Your task to perform on an android device: turn on the 24-hour format for clock Image 0: 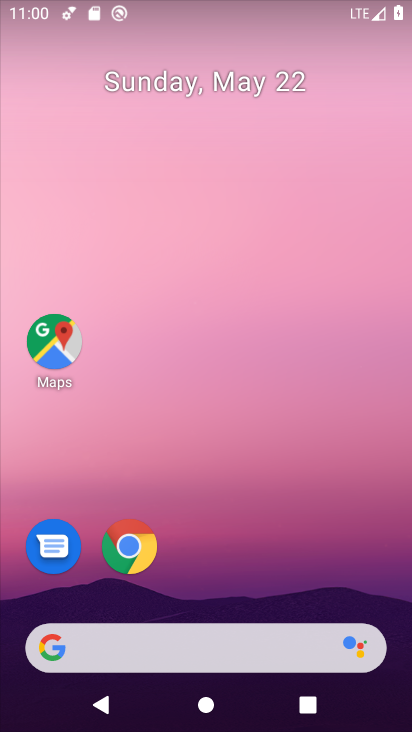
Step 0: drag from (244, 549) to (315, 139)
Your task to perform on an android device: turn on the 24-hour format for clock Image 1: 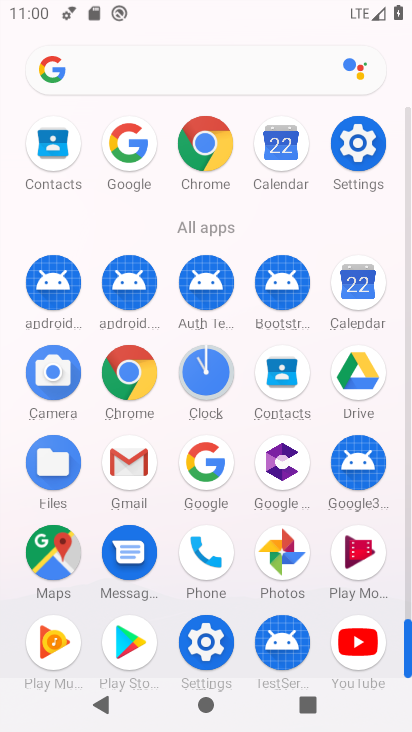
Step 1: click (361, 158)
Your task to perform on an android device: turn on the 24-hour format for clock Image 2: 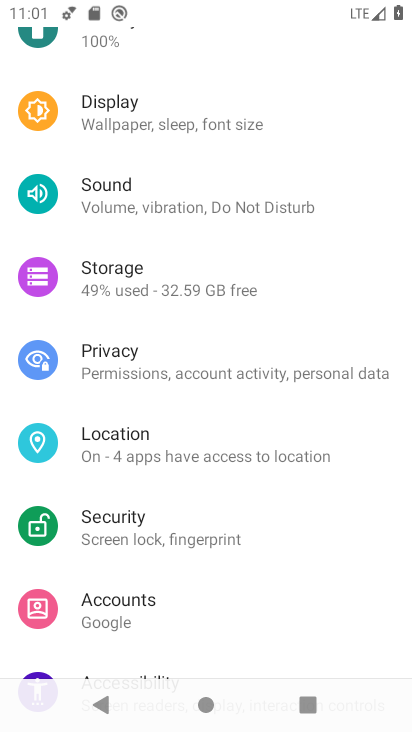
Step 2: press home button
Your task to perform on an android device: turn on the 24-hour format for clock Image 3: 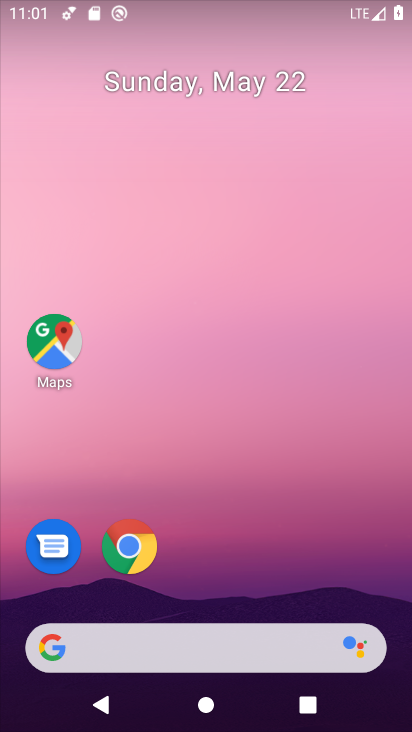
Step 3: drag from (229, 611) to (305, 0)
Your task to perform on an android device: turn on the 24-hour format for clock Image 4: 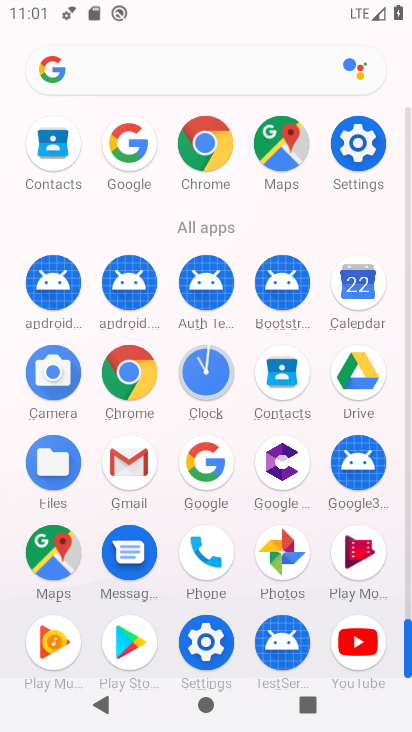
Step 4: click (207, 384)
Your task to perform on an android device: turn on the 24-hour format for clock Image 5: 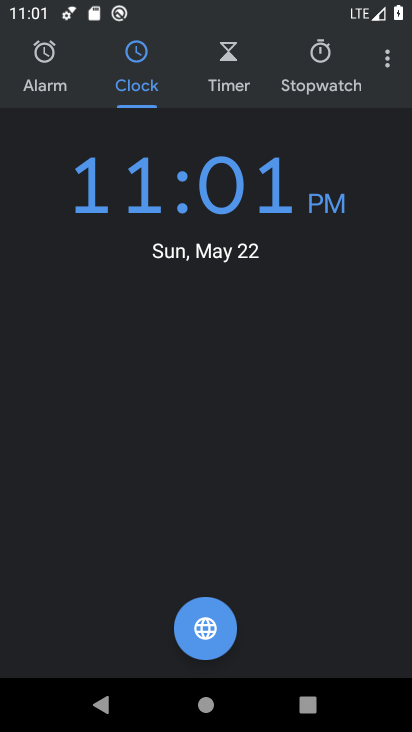
Step 5: click (387, 66)
Your task to perform on an android device: turn on the 24-hour format for clock Image 6: 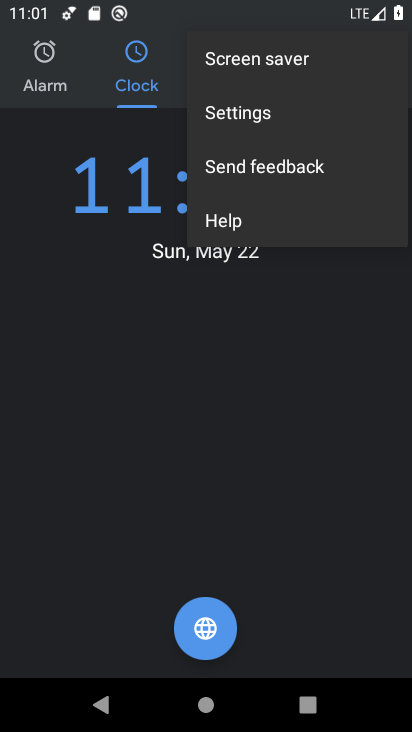
Step 6: click (249, 117)
Your task to perform on an android device: turn on the 24-hour format for clock Image 7: 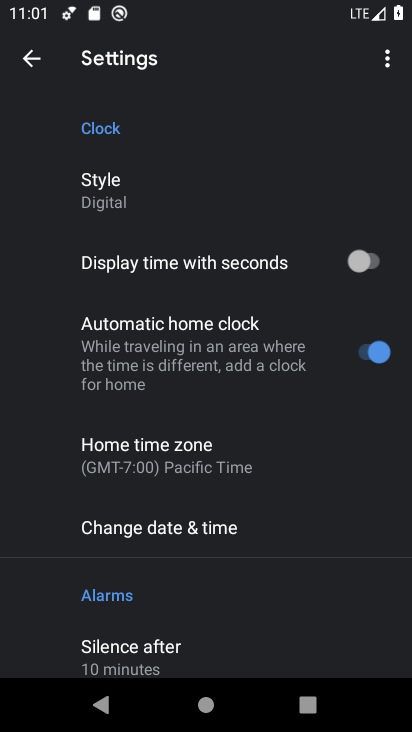
Step 7: click (235, 123)
Your task to perform on an android device: turn on the 24-hour format for clock Image 8: 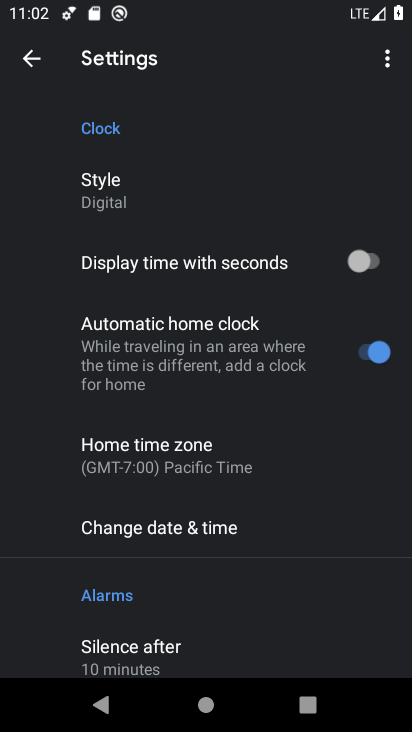
Step 8: click (233, 535)
Your task to perform on an android device: turn on the 24-hour format for clock Image 9: 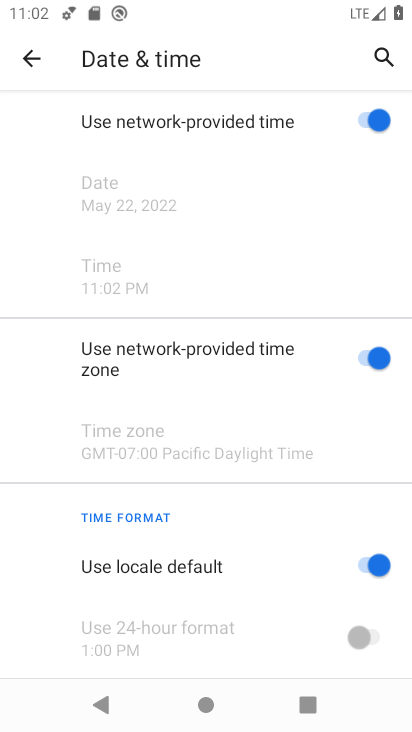
Step 9: task complete